Your task to perform on an android device: Search for seafood restaurants on Google Maps Image 0: 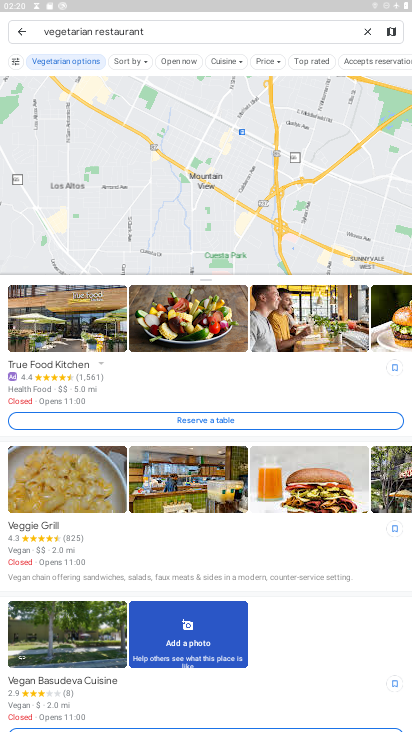
Step 0: click (361, 27)
Your task to perform on an android device: Search for seafood restaurants on Google Maps Image 1: 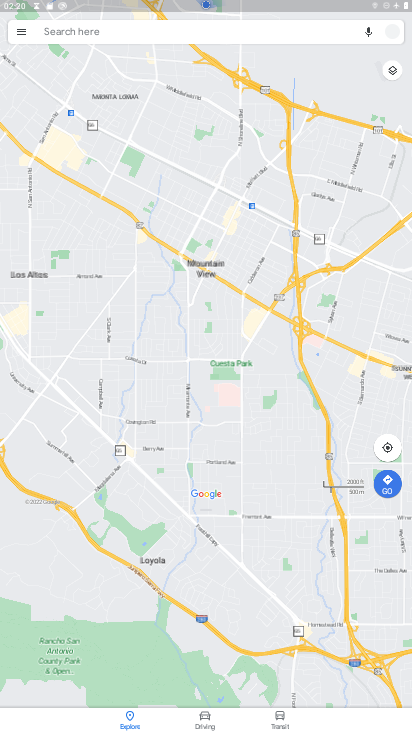
Step 1: click (191, 24)
Your task to perform on an android device: Search for seafood restaurants on Google Maps Image 2: 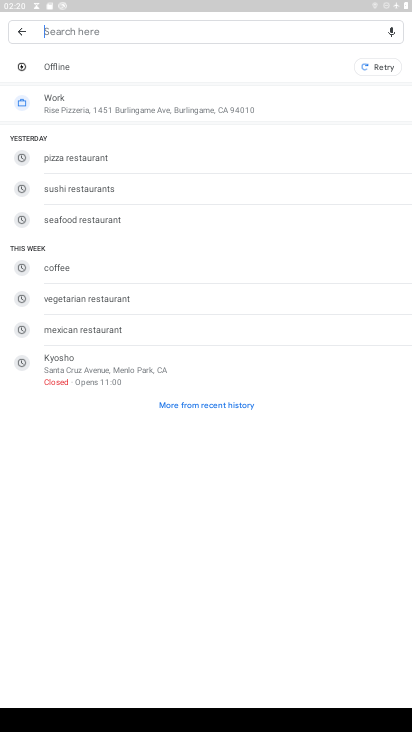
Step 2: click (96, 212)
Your task to perform on an android device: Search for seafood restaurants on Google Maps Image 3: 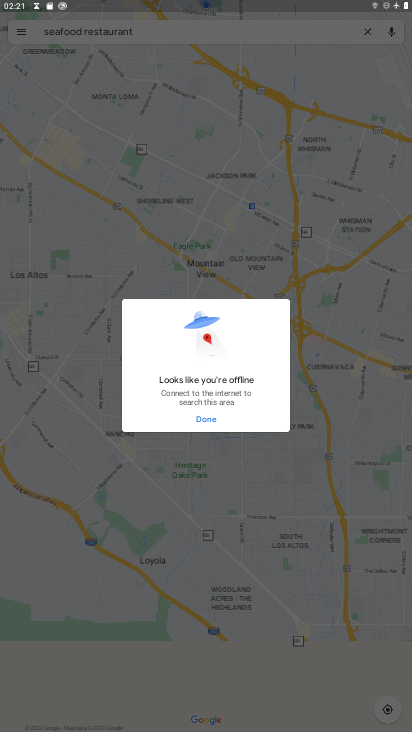
Step 3: task complete